Your task to perform on an android device: Toggle the flashlight Image 0: 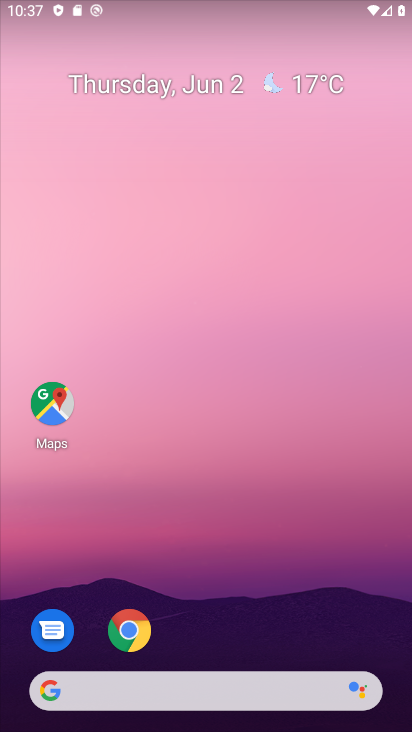
Step 0: drag from (226, 410) to (301, 14)
Your task to perform on an android device: Toggle the flashlight Image 1: 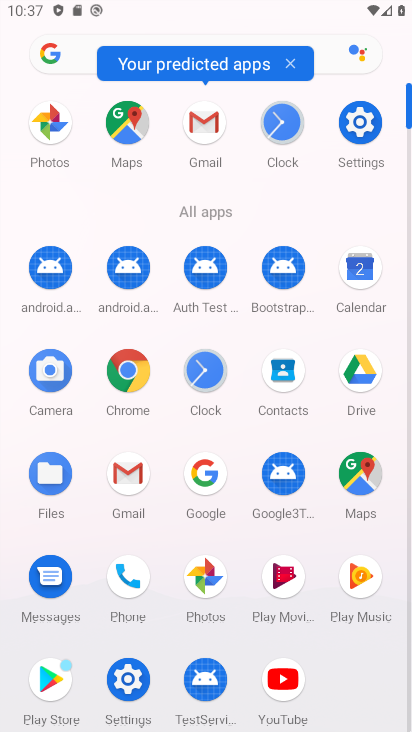
Step 1: click (368, 143)
Your task to perform on an android device: Toggle the flashlight Image 2: 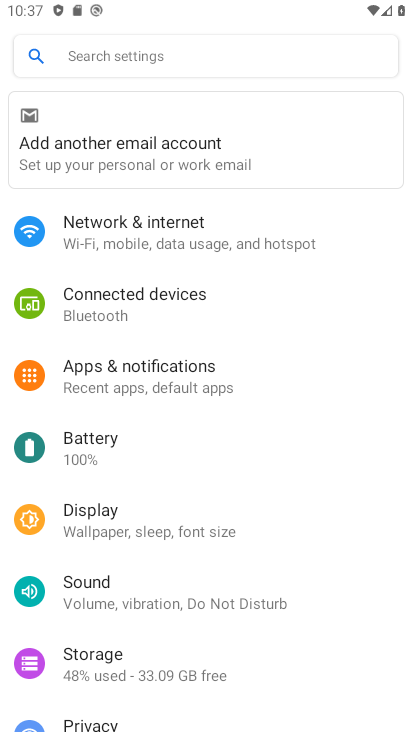
Step 2: click (206, 57)
Your task to perform on an android device: Toggle the flashlight Image 3: 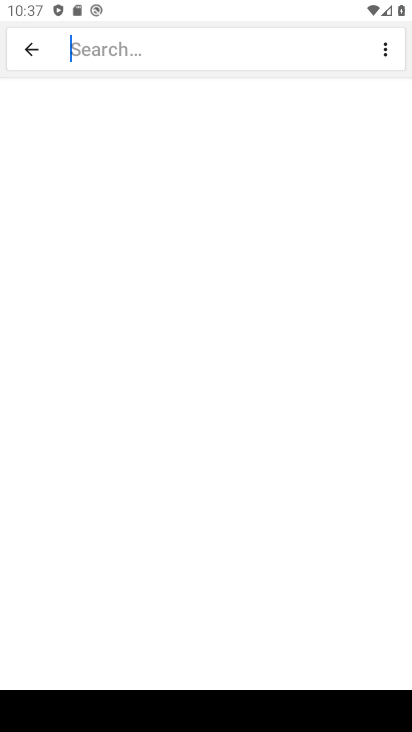
Step 3: type "flashlght"
Your task to perform on an android device: Toggle the flashlight Image 4: 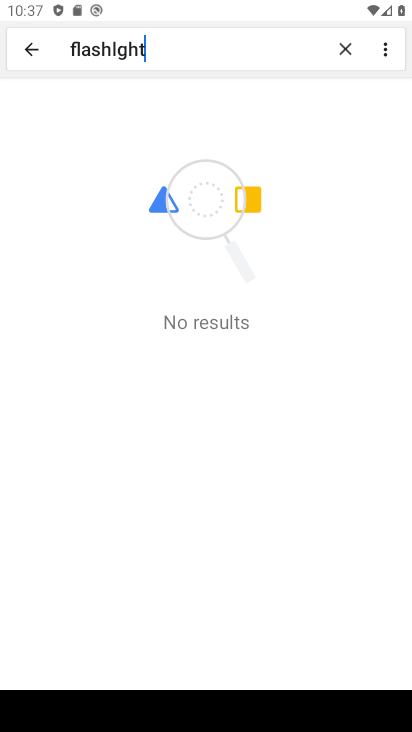
Step 4: click (118, 45)
Your task to perform on an android device: Toggle the flashlight Image 5: 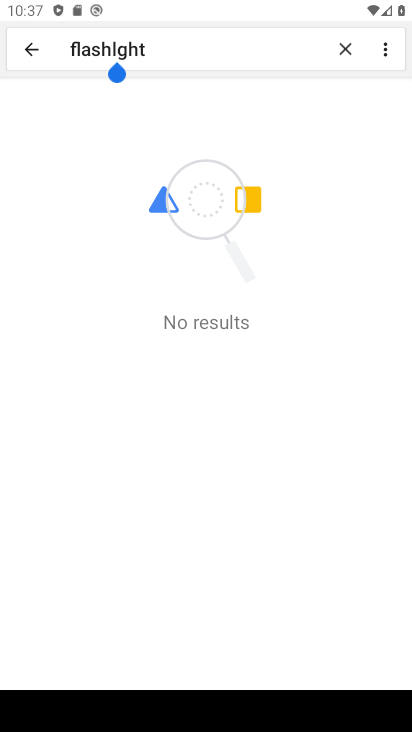
Step 5: type "i"
Your task to perform on an android device: Toggle the flashlight Image 6: 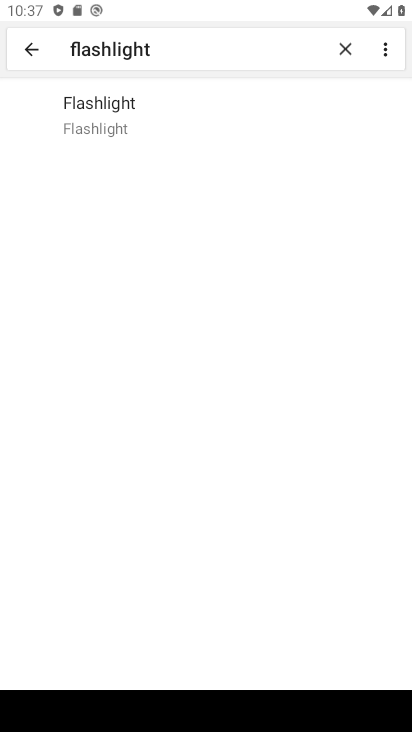
Step 6: click (123, 120)
Your task to perform on an android device: Toggle the flashlight Image 7: 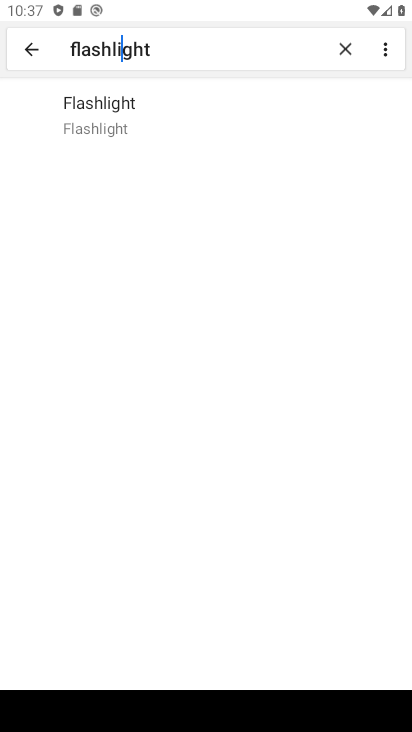
Step 7: click (124, 125)
Your task to perform on an android device: Toggle the flashlight Image 8: 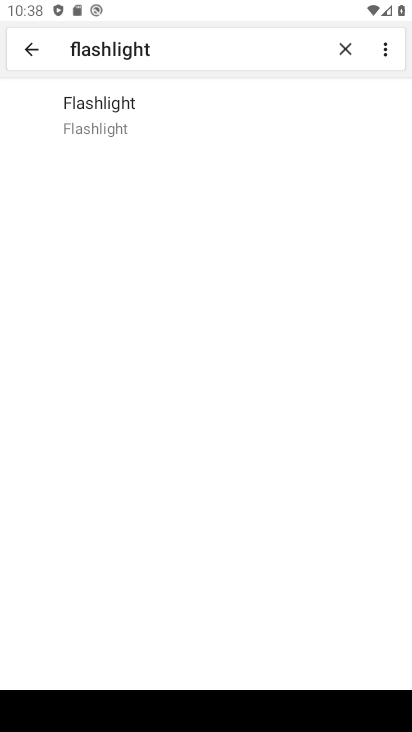
Step 8: click (119, 108)
Your task to perform on an android device: Toggle the flashlight Image 9: 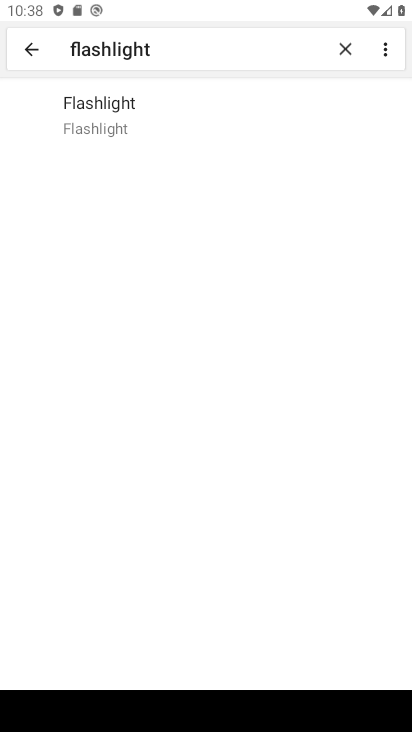
Step 9: task complete